Your task to perform on an android device: empty trash in the gmail app Image 0: 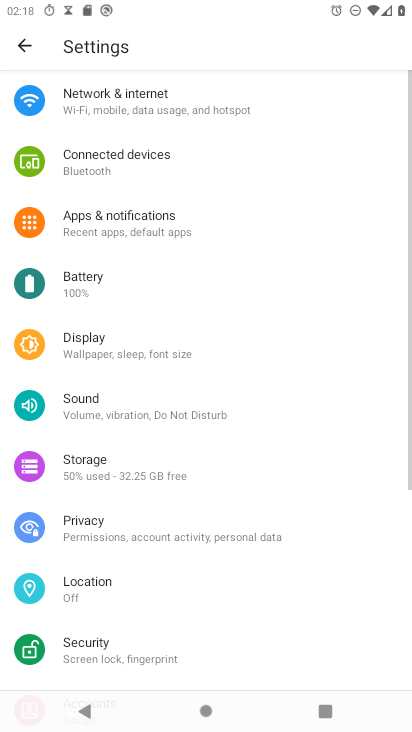
Step 0: press home button
Your task to perform on an android device: empty trash in the gmail app Image 1: 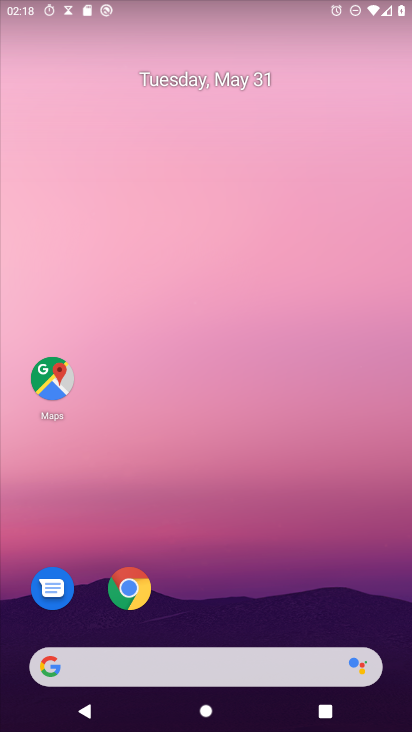
Step 1: drag from (314, 672) to (392, 159)
Your task to perform on an android device: empty trash in the gmail app Image 2: 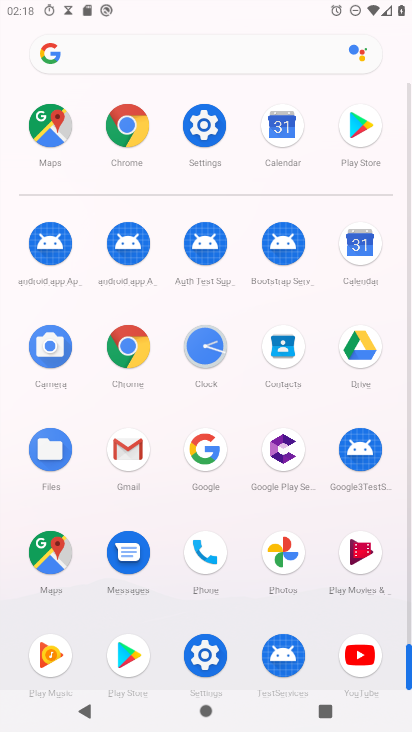
Step 2: click (135, 445)
Your task to perform on an android device: empty trash in the gmail app Image 3: 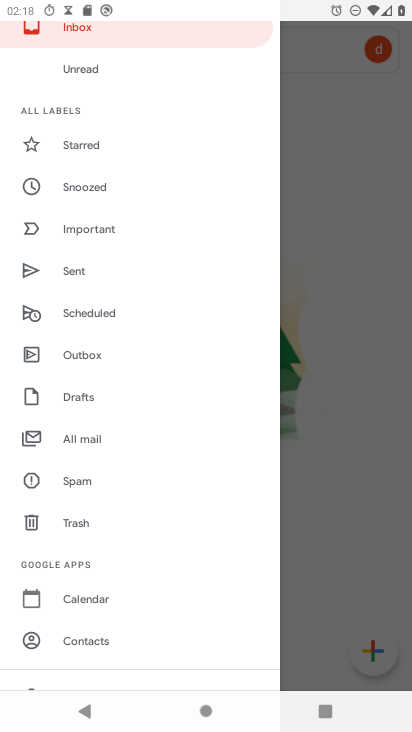
Step 3: click (98, 516)
Your task to perform on an android device: empty trash in the gmail app Image 4: 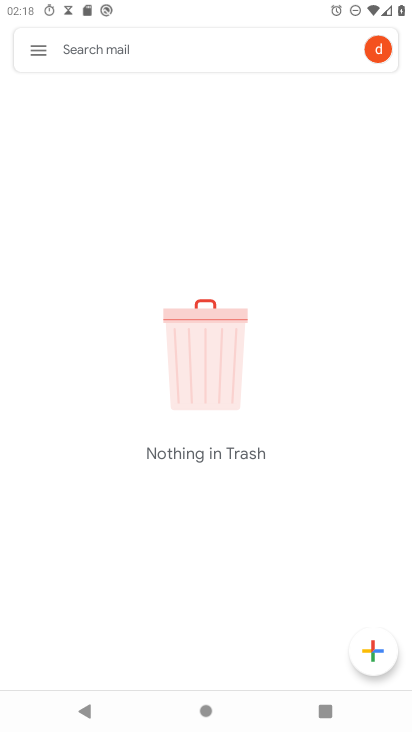
Step 4: task complete